Your task to perform on an android device: change keyboard looks Image 0: 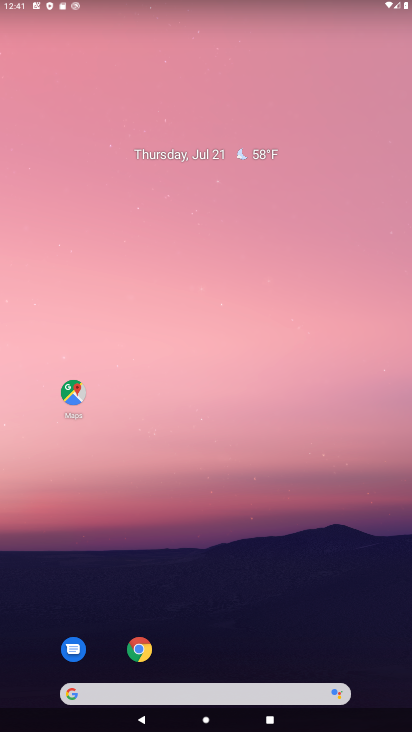
Step 0: drag from (372, 665) to (341, 130)
Your task to perform on an android device: change keyboard looks Image 1: 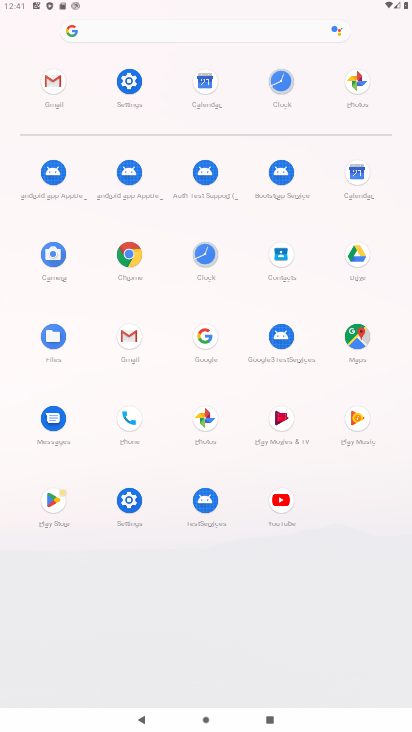
Step 1: click (130, 501)
Your task to perform on an android device: change keyboard looks Image 2: 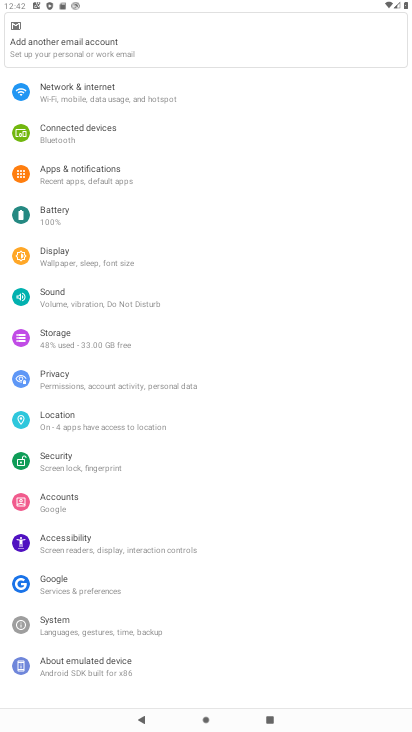
Step 2: click (51, 618)
Your task to perform on an android device: change keyboard looks Image 3: 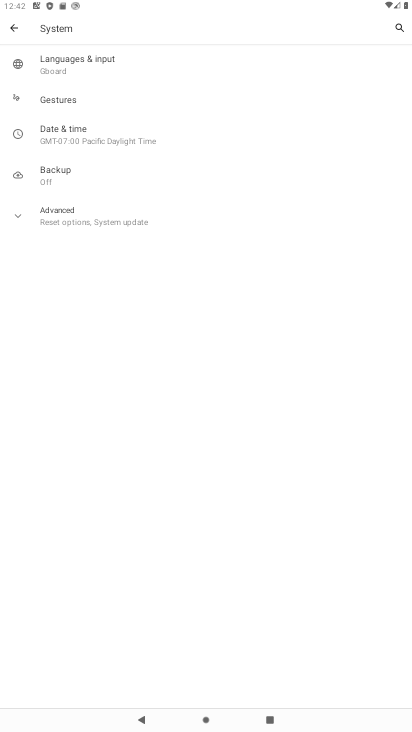
Step 3: click (63, 62)
Your task to perform on an android device: change keyboard looks Image 4: 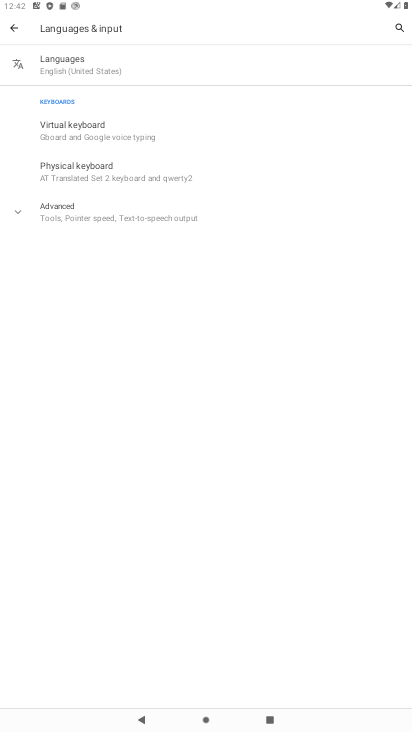
Step 4: click (61, 178)
Your task to perform on an android device: change keyboard looks Image 5: 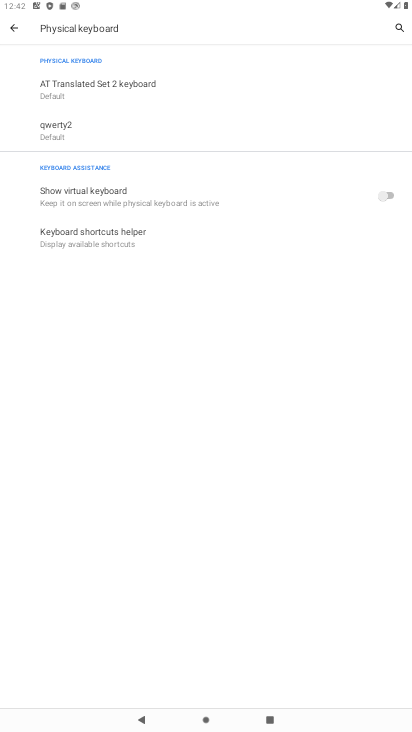
Step 5: click (52, 123)
Your task to perform on an android device: change keyboard looks Image 6: 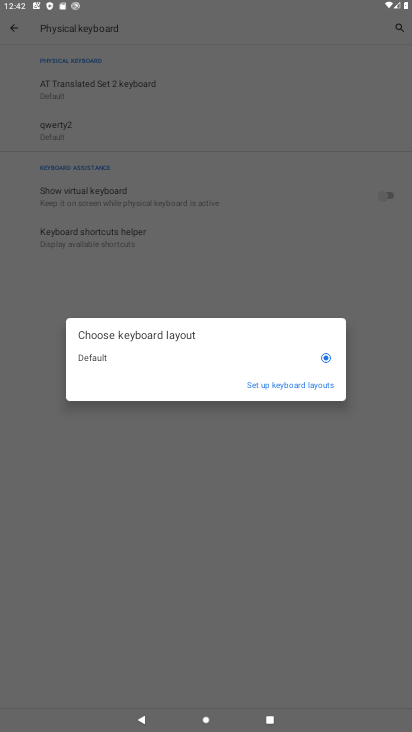
Step 6: click (288, 386)
Your task to perform on an android device: change keyboard looks Image 7: 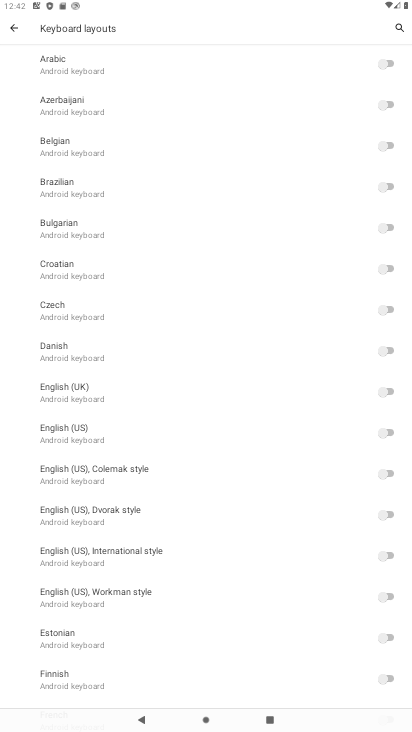
Step 7: click (387, 393)
Your task to perform on an android device: change keyboard looks Image 8: 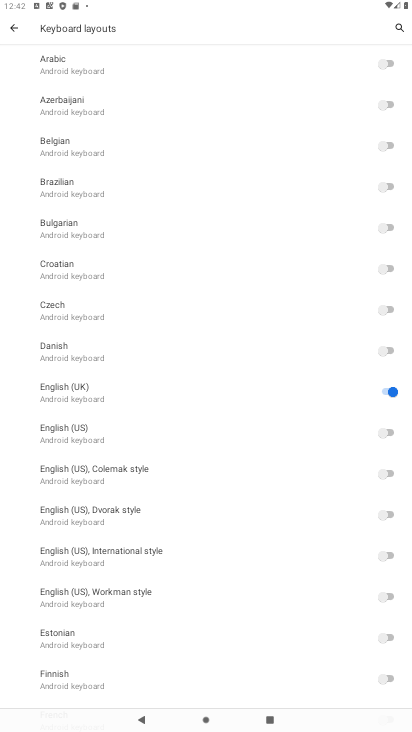
Step 8: task complete